Your task to perform on an android device: delete browsing data in the chrome app Image 0: 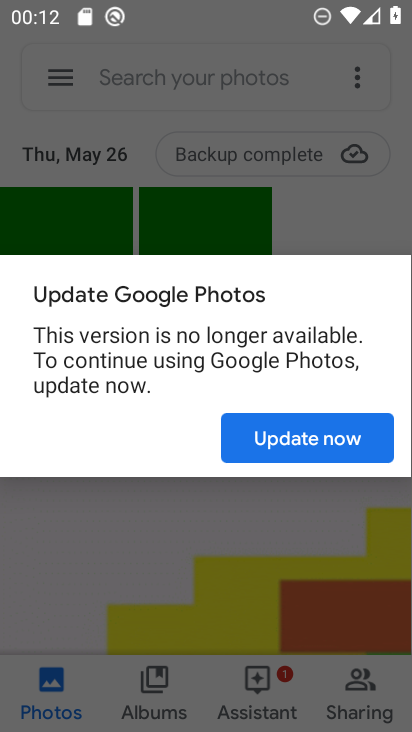
Step 0: press home button
Your task to perform on an android device: delete browsing data in the chrome app Image 1: 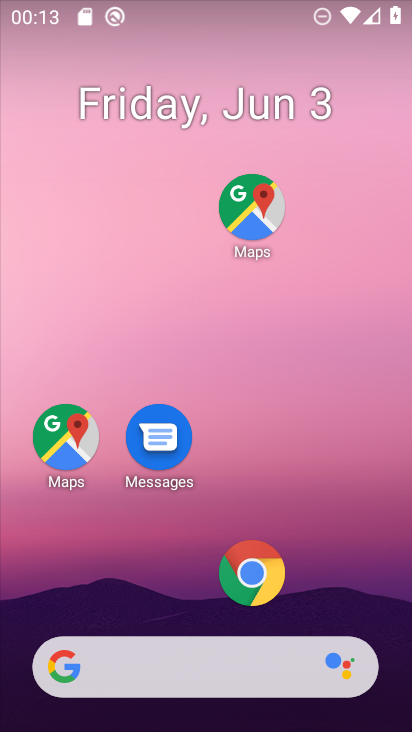
Step 1: click (268, 569)
Your task to perform on an android device: delete browsing data in the chrome app Image 2: 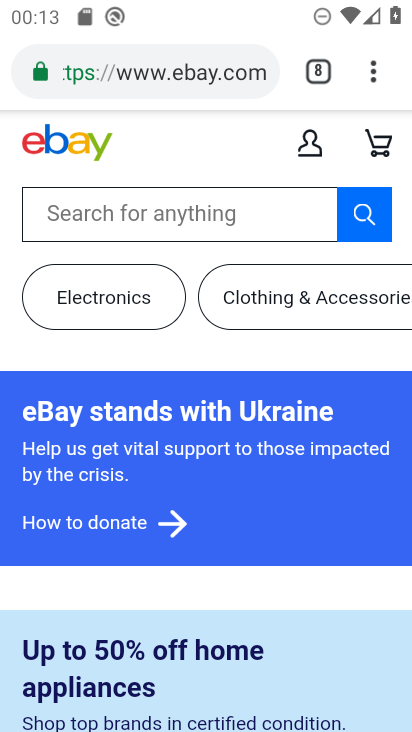
Step 2: click (377, 65)
Your task to perform on an android device: delete browsing data in the chrome app Image 3: 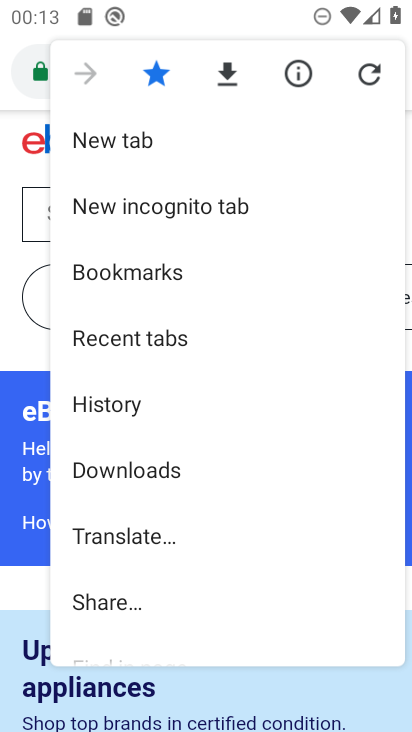
Step 3: click (113, 397)
Your task to perform on an android device: delete browsing data in the chrome app Image 4: 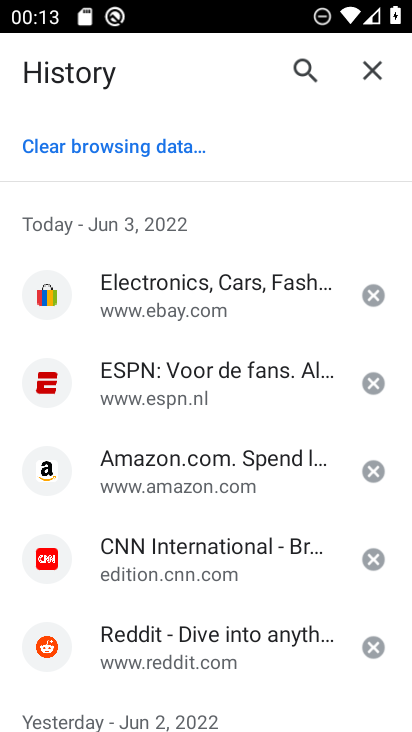
Step 4: click (161, 149)
Your task to perform on an android device: delete browsing data in the chrome app Image 5: 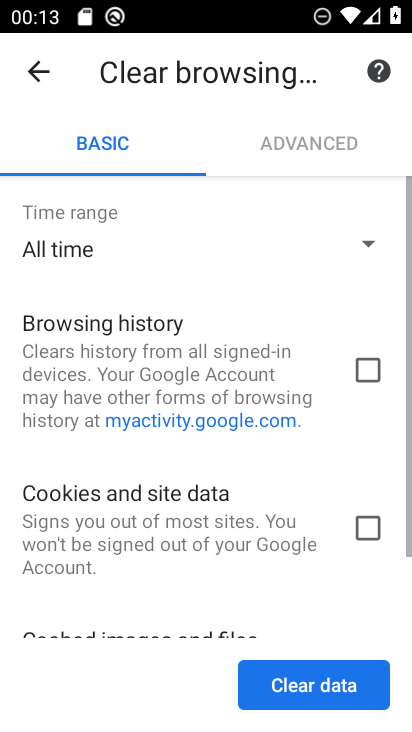
Step 5: click (357, 371)
Your task to perform on an android device: delete browsing data in the chrome app Image 6: 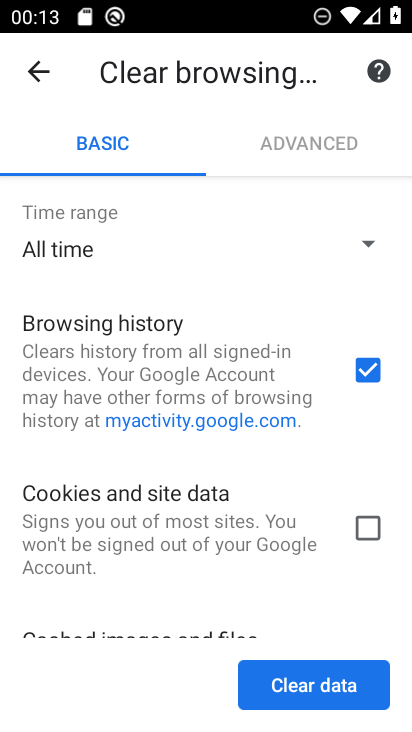
Step 6: click (330, 683)
Your task to perform on an android device: delete browsing data in the chrome app Image 7: 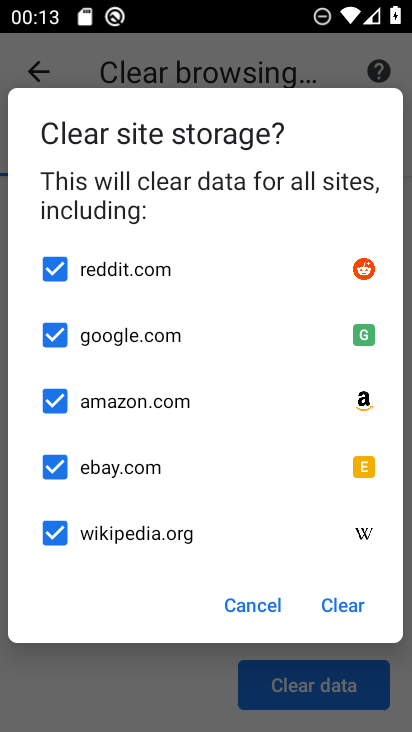
Step 7: click (349, 613)
Your task to perform on an android device: delete browsing data in the chrome app Image 8: 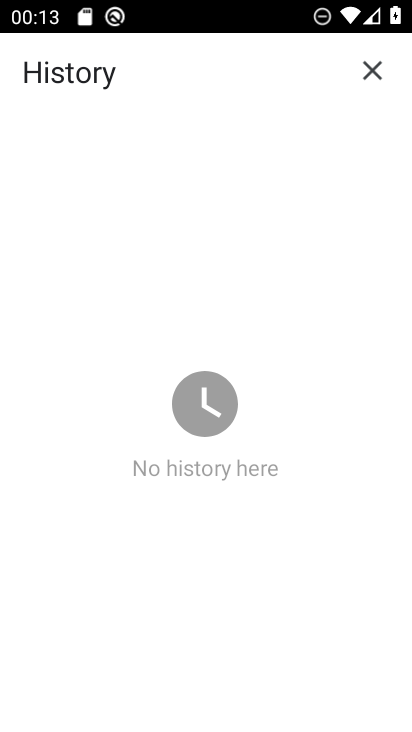
Step 8: task complete